Your task to perform on an android device: toggle location history Image 0: 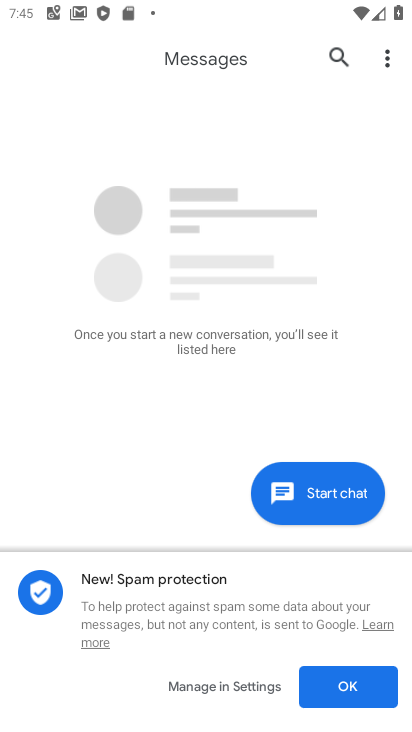
Step 0: press home button
Your task to perform on an android device: toggle location history Image 1: 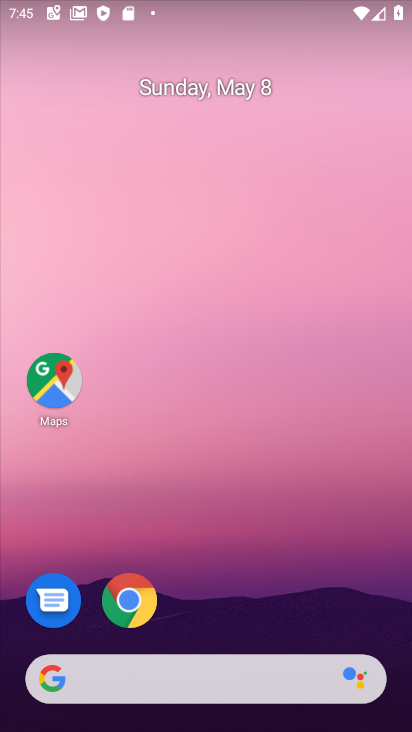
Step 1: drag from (258, 703) to (182, 352)
Your task to perform on an android device: toggle location history Image 2: 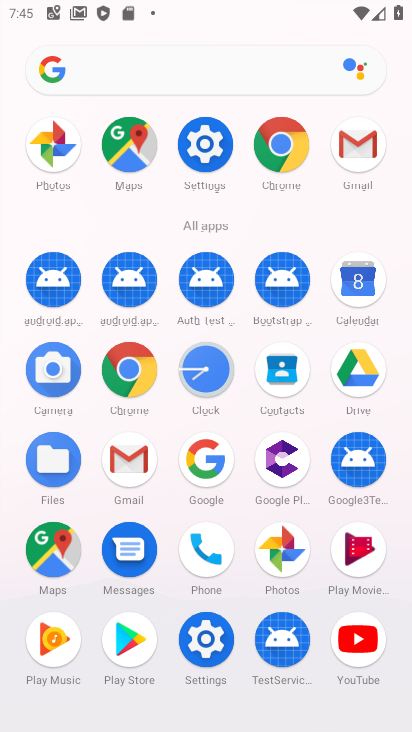
Step 2: click (187, 166)
Your task to perform on an android device: toggle location history Image 3: 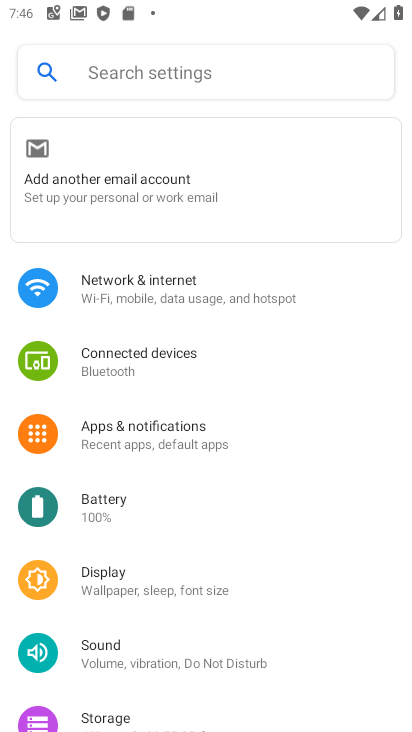
Step 3: click (198, 69)
Your task to perform on an android device: toggle location history Image 4: 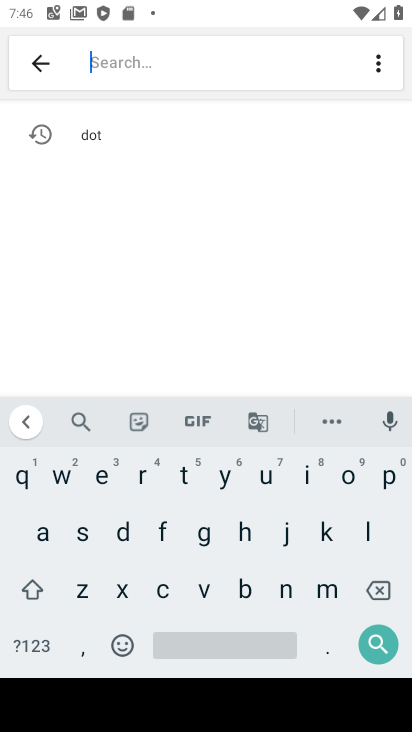
Step 4: click (368, 532)
Your task to perform on an android device: toggle location history Image 5: 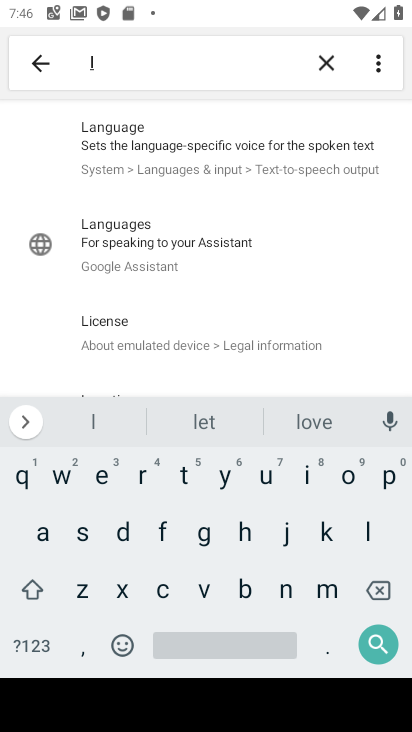
Step 5: click (334, 479)
Your task to perform on an android device: toggle location history Image 6: 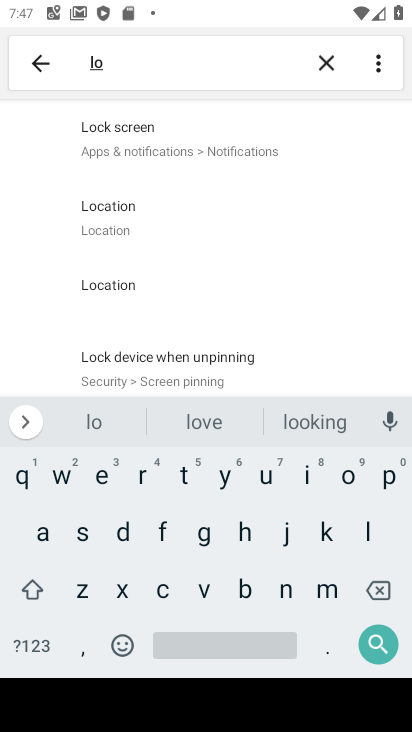
Step 6: click (166, 213)
Your task to perform on an android device: toggle location history Image 7: 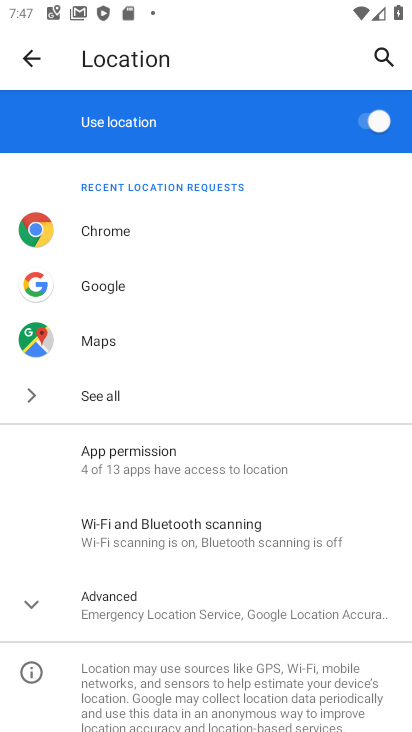
Step 7: click (105, 592)
Your task to perform on an android device: toggle location history Image 8: 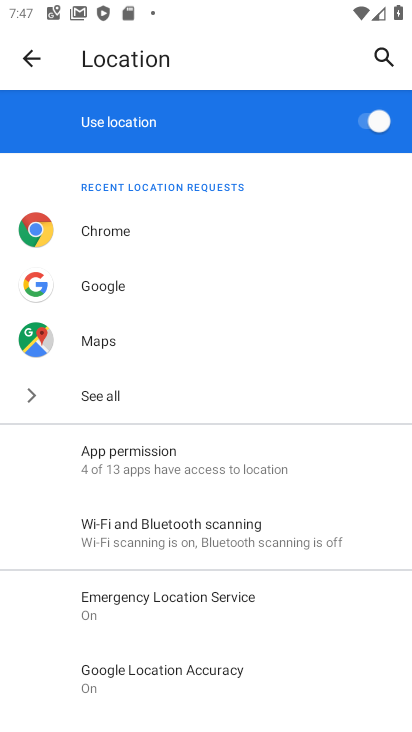
Step 8: drag from (193, 676) to (178, 580)
Your task to perform on an android device: toggle location history Image 9: 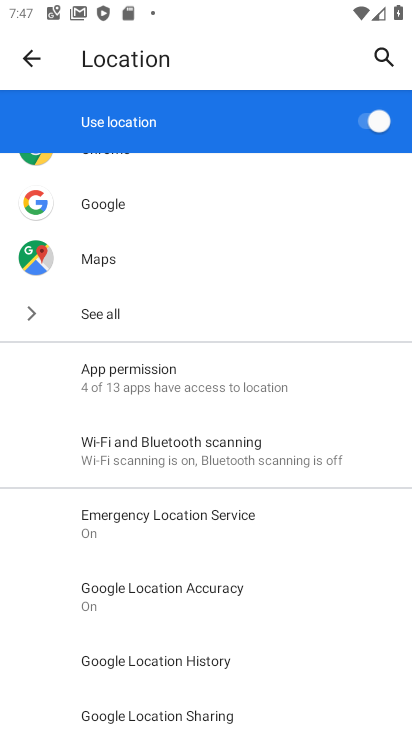
Step 9: click (178, 667)
Your task to perform on an android device: toggle location history Image 10: 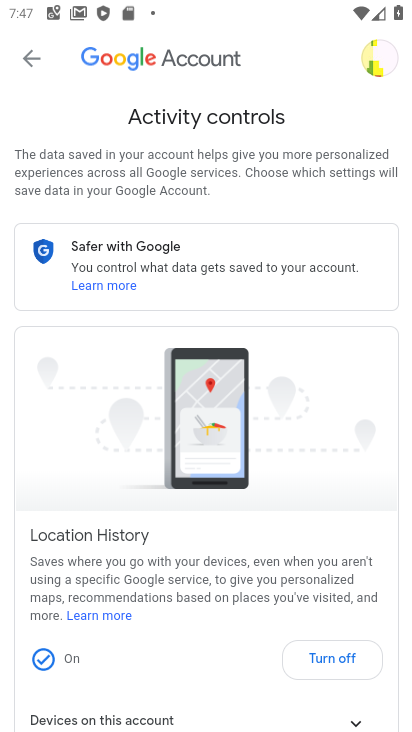
Step 10: task complete